Your task to perform on an android device: See recent photos Image 0: 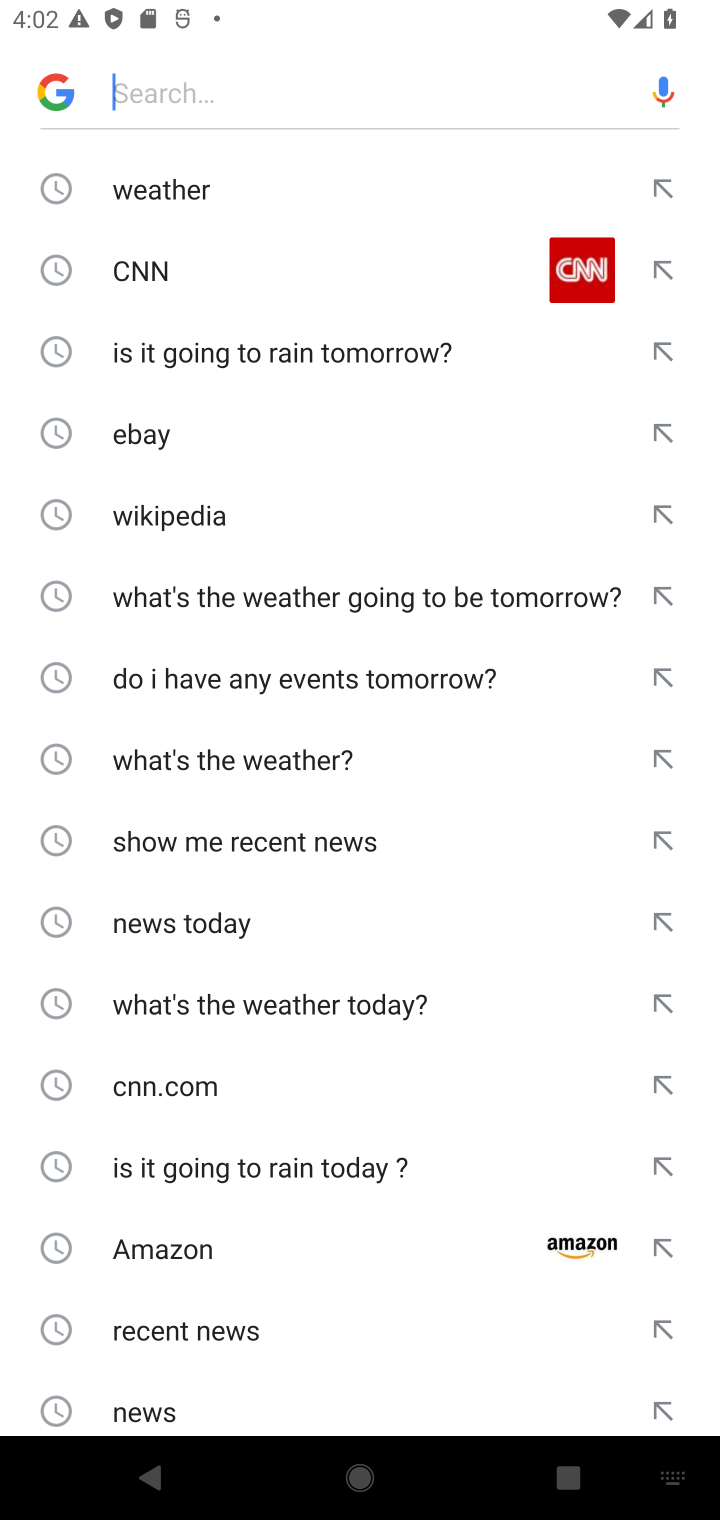
Step 0: press home button
Your task to perform on an android device: See recent photos Image 1: 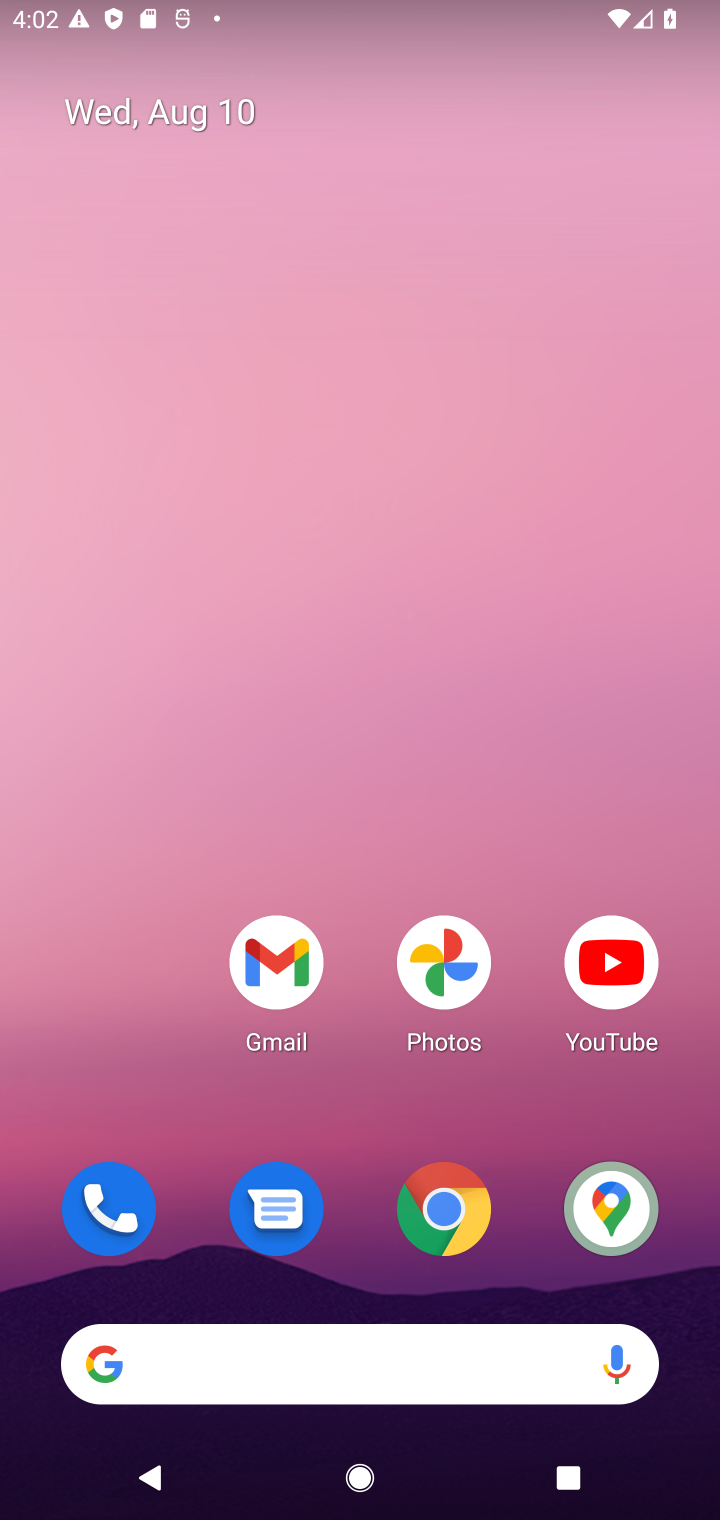
Step 1: click (455, 944)
Your task to perform on an android device: See recent photos Image 2: 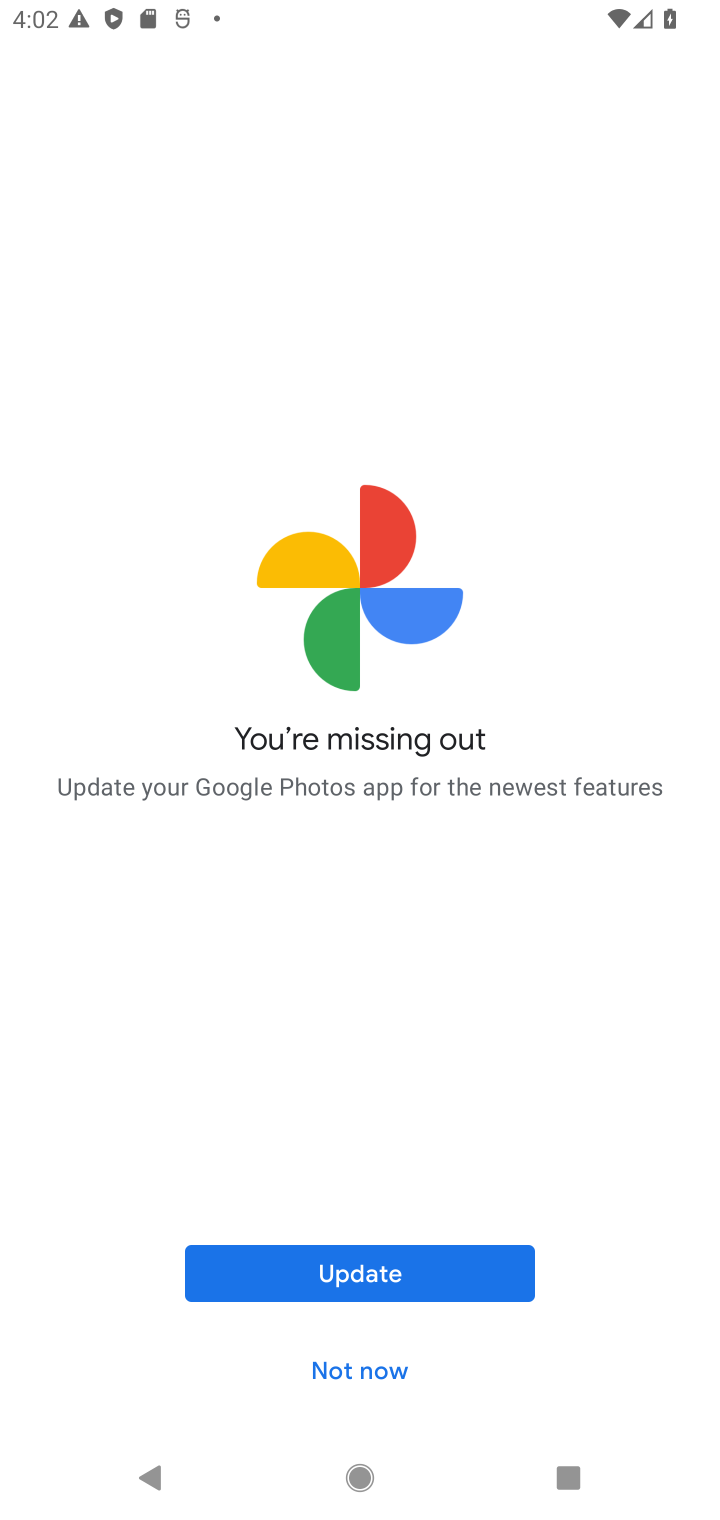
Step 2: click (347, 1365)
Your task to perform on an android device: See recent photos Image 3: 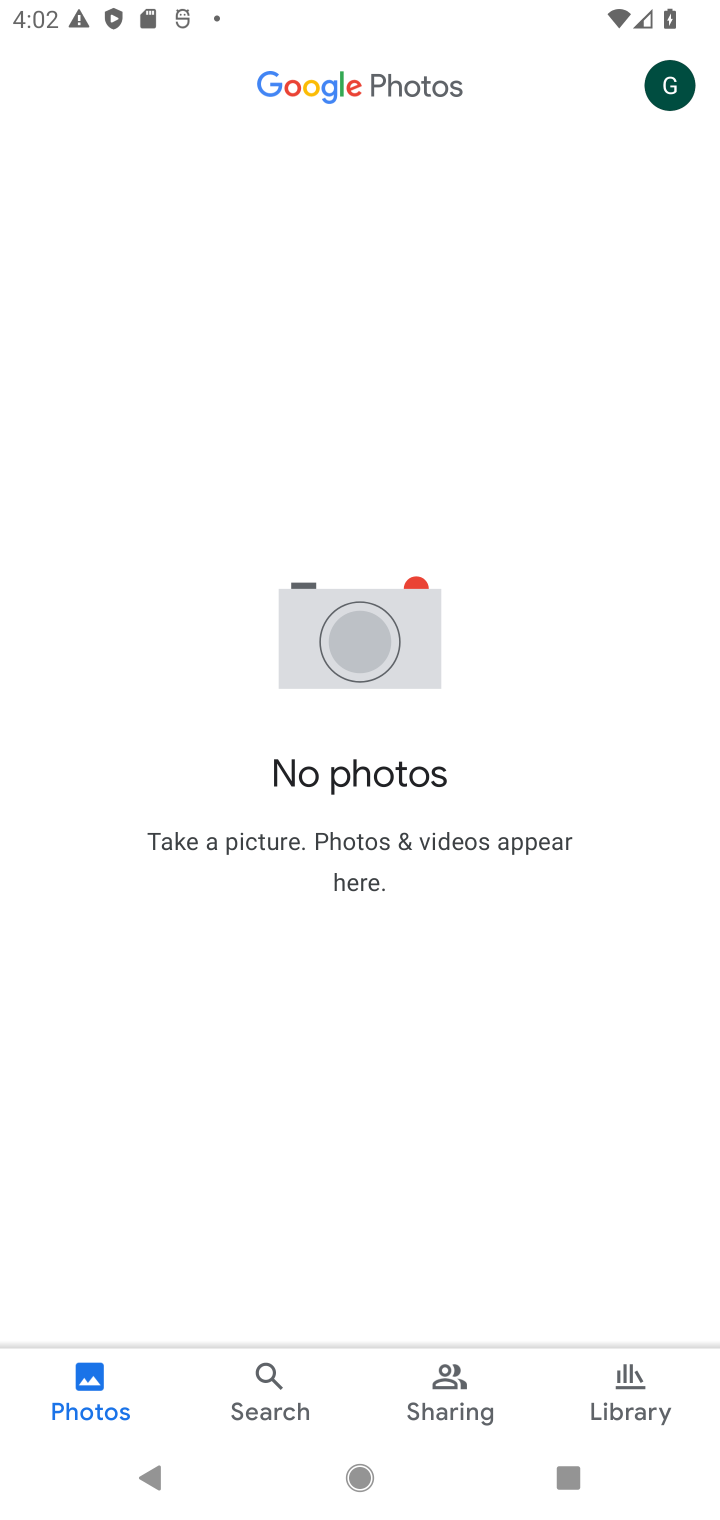
Step 3: task complete